Your task to perform on an android device: toggle data saver in the chrome app Image 0: 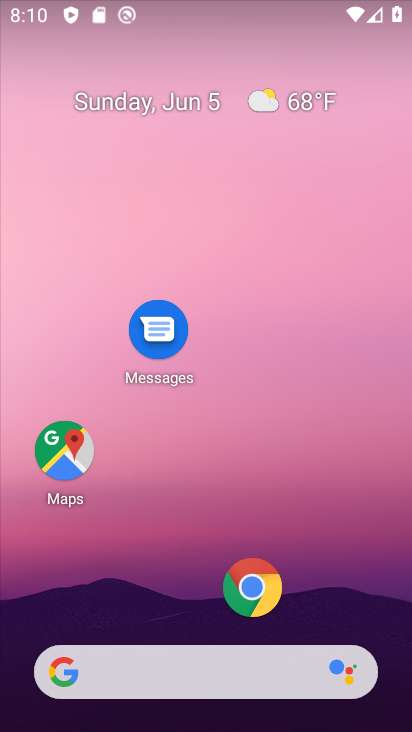
Step 0: drag from (210, 592) to (220, 467)
Your task to perform on an android device: toggle data saver in the chrome app Image 1: 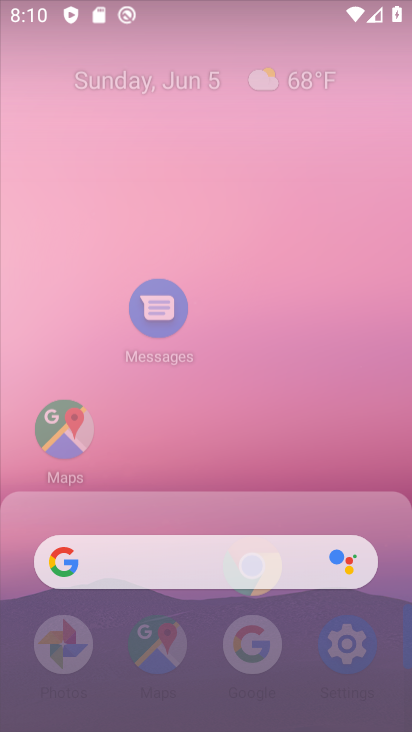
Step 1: click (279, 209)
Your task to perform on an android device: toggle data saver in the chrome app Image 2: 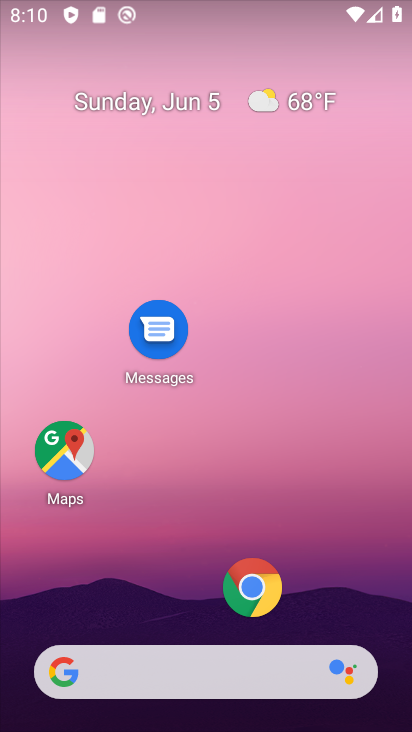
Step 2: drag from (229, 586) to (246, 207)
Your task to perform on an android device: toggle data saver in the chrome app Image 3: 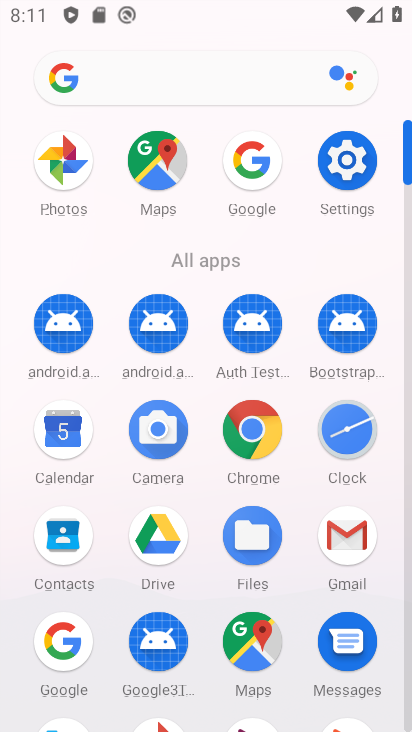
Step 3: click (251, 448)
Your task to perform on an android device: toggle data saver in the chrome app Image 4: 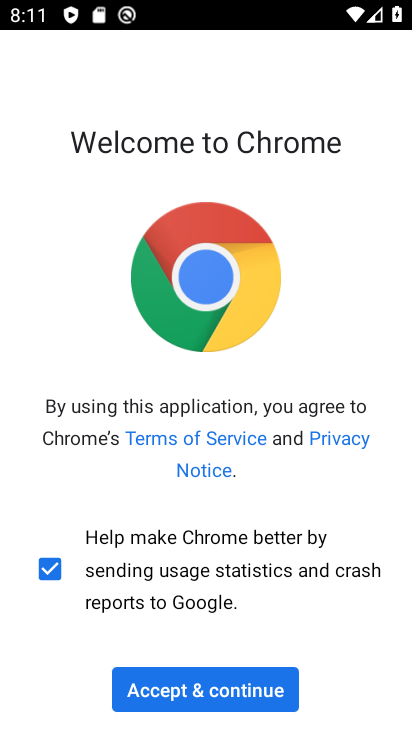
Step 4: click (235, 697)
Your task to perform on an android device: toggle data saver in the chrome app Image 5: 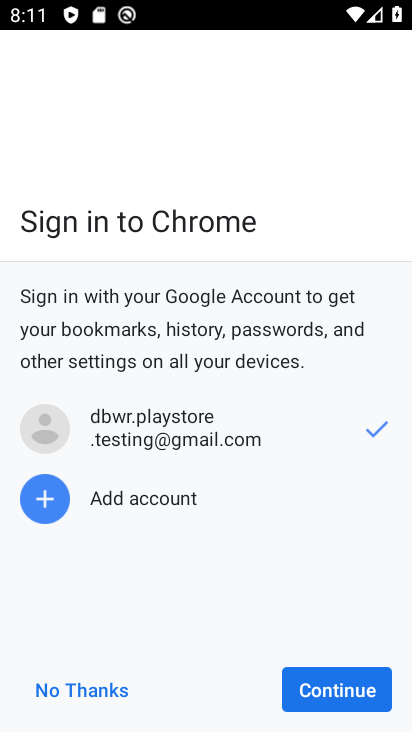
Step 5: click (334, 704)
Your task to perform on an android device: toggle data saver in the chrome app Image 6: 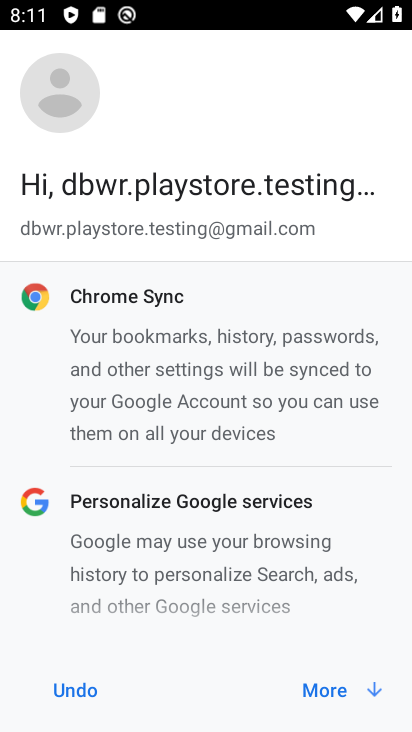
Step 6: click (349, 683)
Your task to perform on an android device: toggle data saver in the chrome app Image 7: 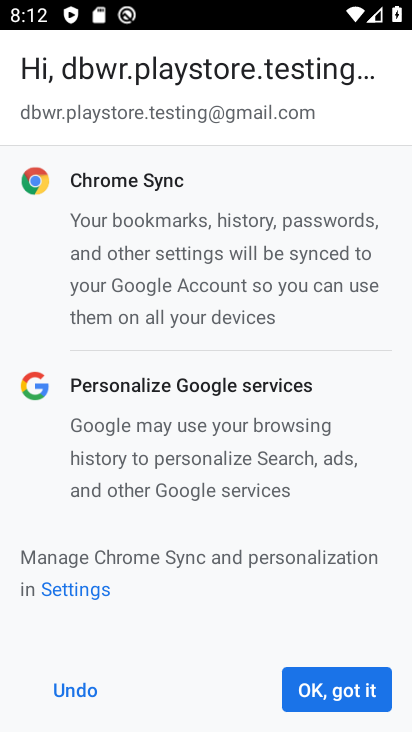
Step 7: click (367, 699)
Your task to perform on an android device: toggle data saver in the chrome app Image 8: 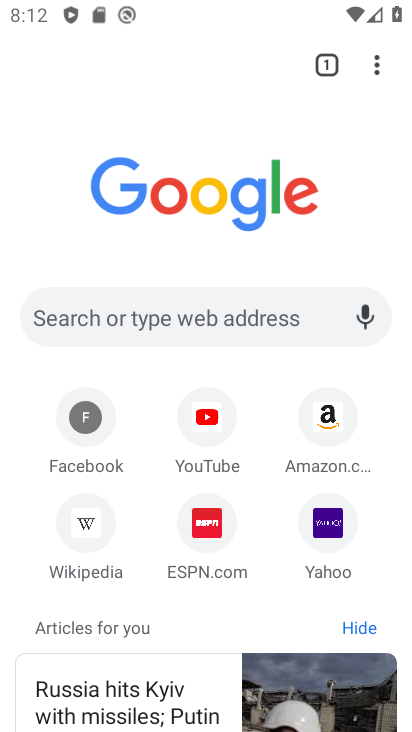
Step 8: click (382, 76)
Your task to perform on an android device: toggle data saver in the chrome app Image 9: 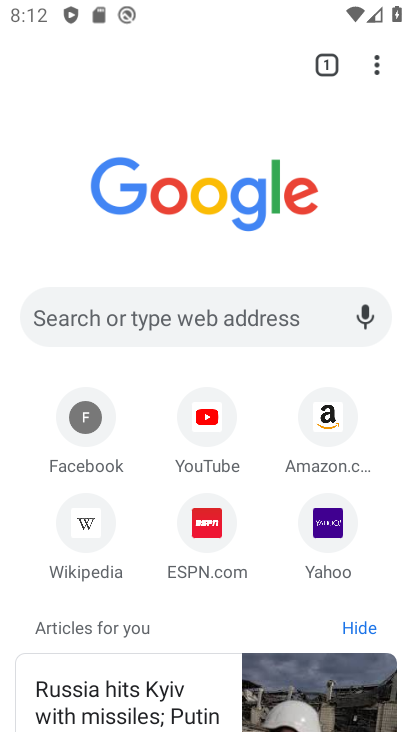
Step 9: click (375, 71)
Your task to perform on an android device: toggle data saver in the chrome app Image 10: 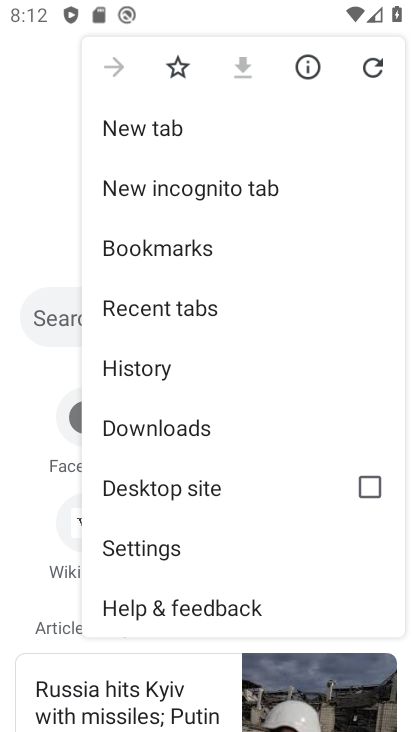
Step 10: click (209, 555)
Your task to perform on an android device: toggle data saver in the chrome app Image 11: 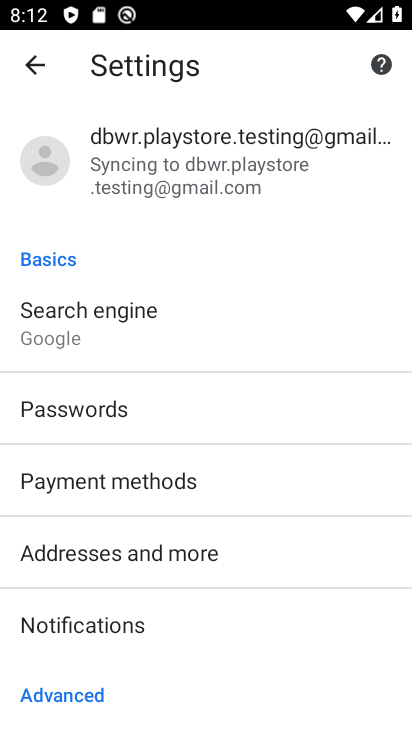
Step 11: drag from (177, 541) to (214, 271)
Your task to perform on an android device: toggle data saver in the chrome app Image 12: 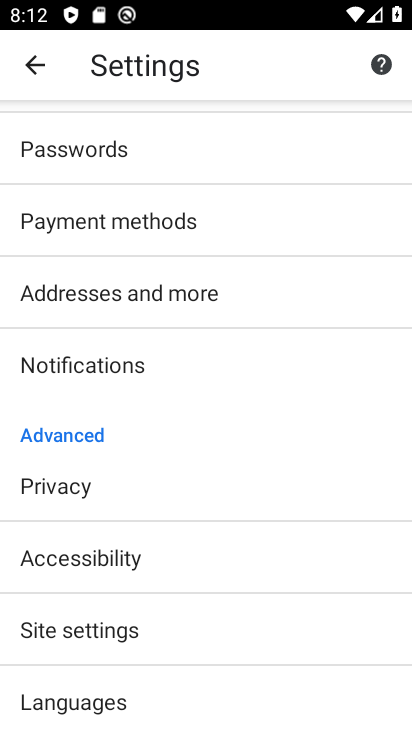
Step 12: drag from (126, 618) to (161, 358)
Your task to perform on an android device: toggle data saver in the chrome app Image 13: 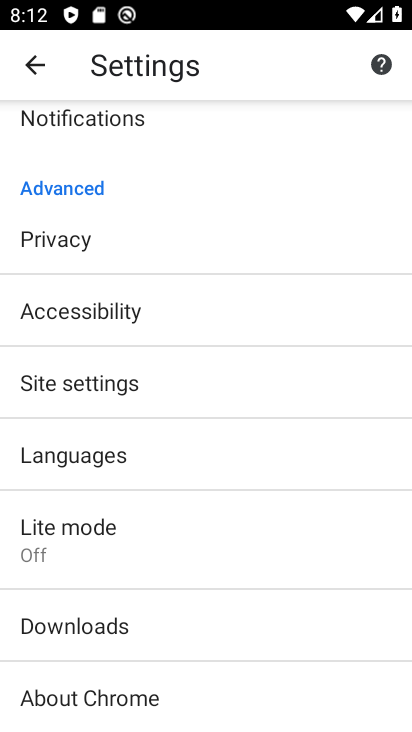
Step 13: drag from (104, 578) to (118, 409)
Your task to perform on an android device: toggle data saver in the chrome app Image 14: 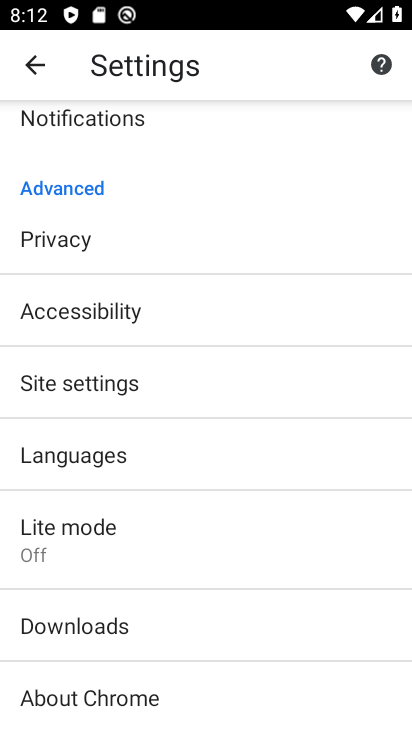
Step 14: click (122, 539)
Your task to perform on an android device: toggle data saver in the chrome app Image 15: 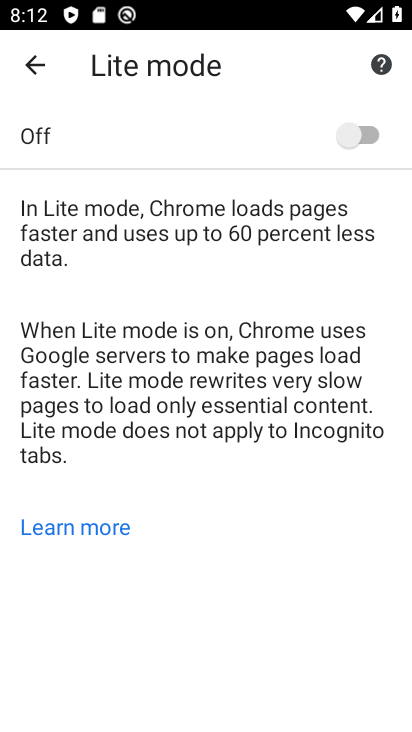
Step 15: click (298, 137)
Your task to perform on an android device: toggle data saver in the chrome app Image 16: 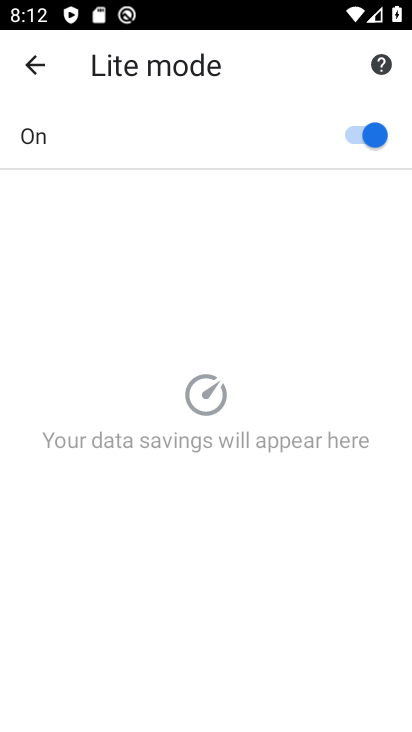
Step 16: task complete